Your task to perform on an android device: How much does a 2 bedroom apartment rent for in Boston? Image 0: 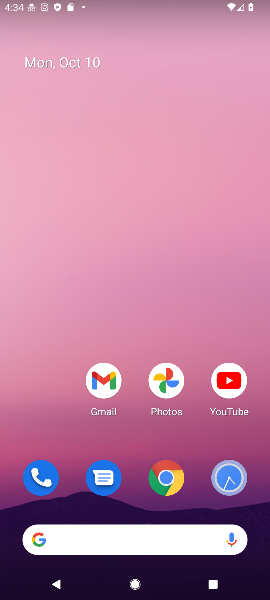
Step 0: click (117, 541)
Your task to perform on an android device: How much does a 2 bedroom apartment rent for in Boston? Image 1: 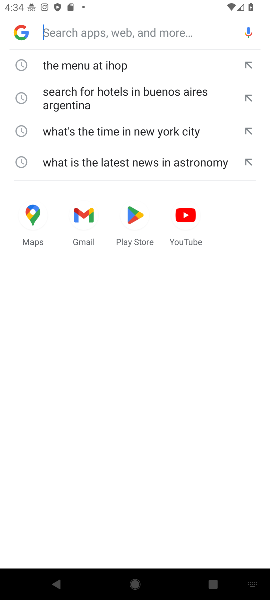
Step 1: type "How much does a 2 bedroom apartment rent for in Boston?"
Your task to perform on an android device: How much does a 2 bedroom apartment rent for in Boston? Image 2: 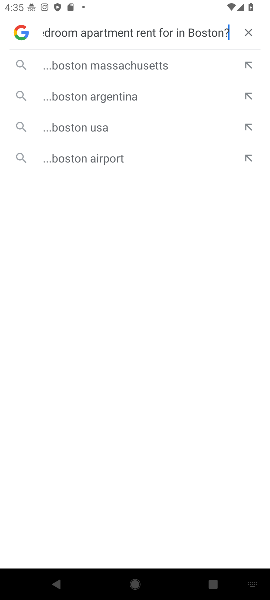
Step 2: click (193, 72)
Your task to perform on an android device: How much does a 2 bedroom apartment rent for in Boston? Image 3: 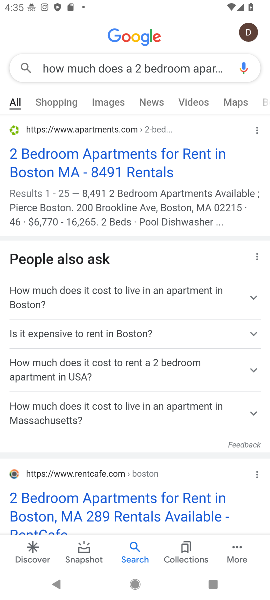
Step 3: click (196, 158)
Your task to perform on an android device: How much does a 2 bedroom apartment rent for in Boston? Image 4: 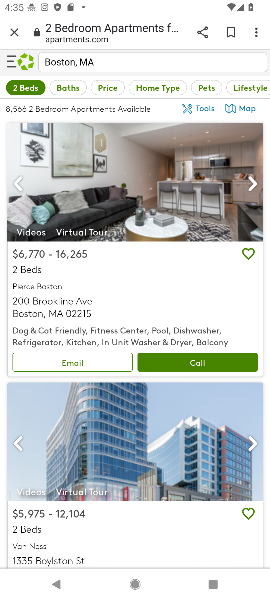
Step 4: task complete